Your task to perform on an android device: Search for vegetarian restaurants on Maps Image 0: 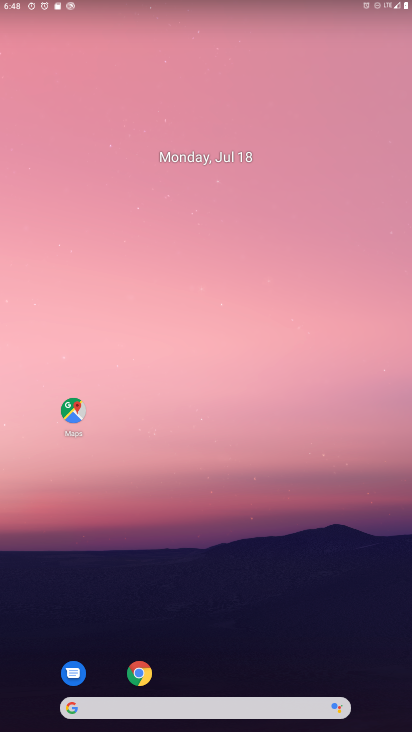
Step 0: click (79, 408)
Your task to perform on an android device: Search for vegetarian restaurants on Maps Image 1: 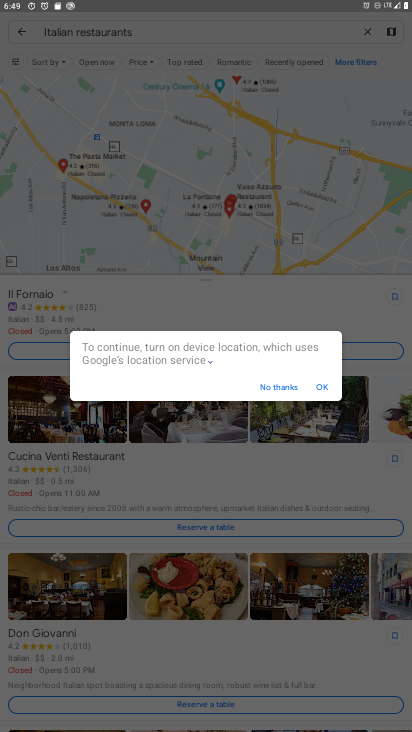
Step 1: click (320, 386)
Your task to perform on an android device: Search for vegetarian restaurants on Maps Image 2: 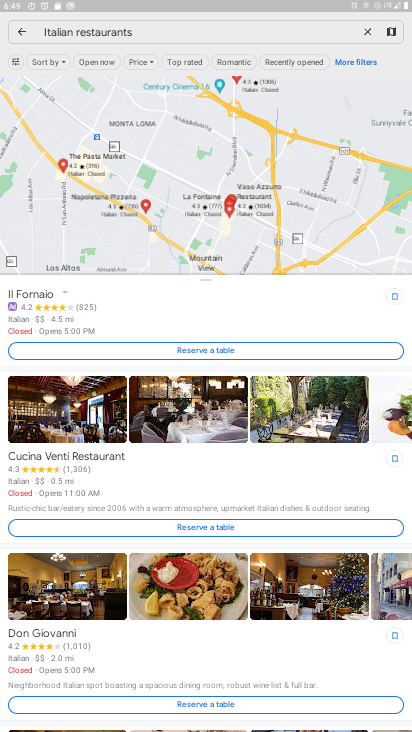
Step 2: click (145, 29)
Your task to perform on an android device: Search for vegetarian restaurants on Maps Image 3: 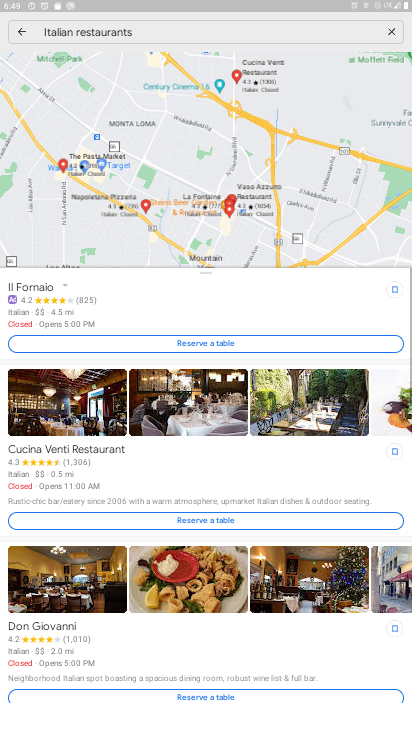
Step 3: click (131, 31)
Your task to perform on an android device: Search for vegetarian restaurants on Maps Image 4: 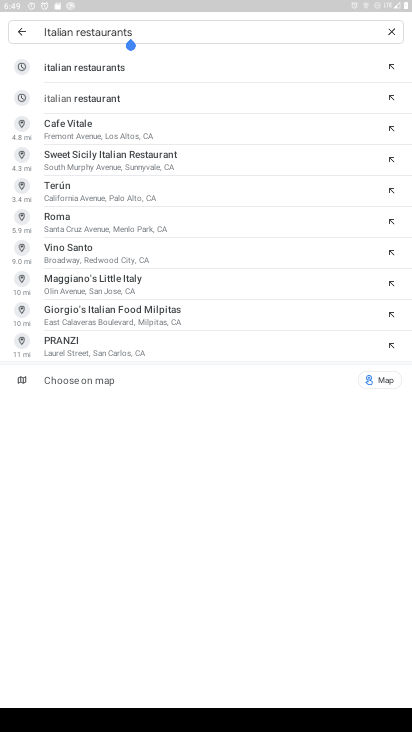
Step 4: click (390, 28)
Your task to perform on an android device: Search for vegetarian restaurants on Maps Image 5: 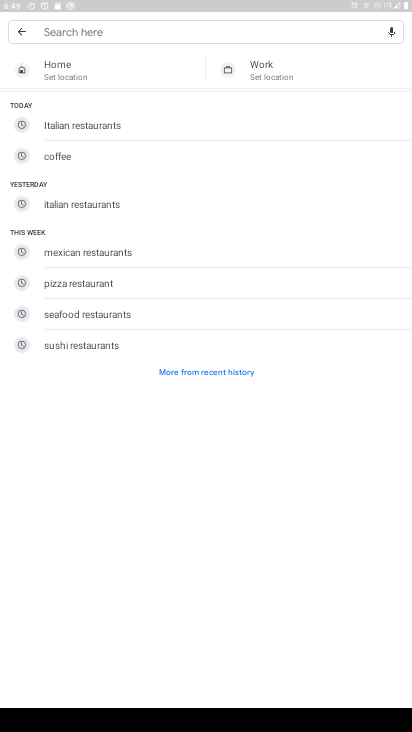
Step 5: type "vegetarian restaurants "
Your task to perform on an android device: Search for vegetarian restaurants on Maps Image 6: 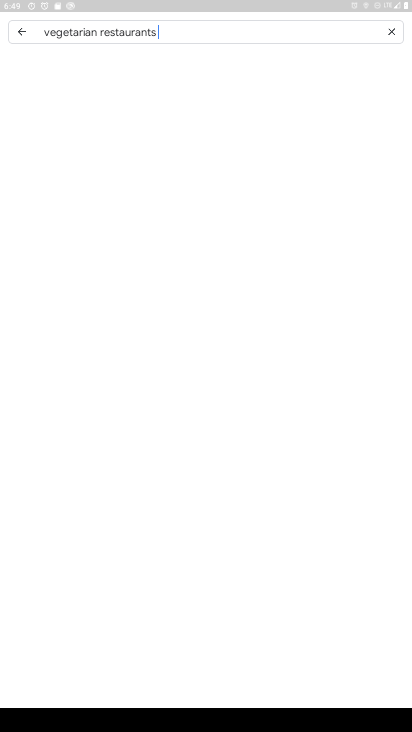
Step 6: press enter
Your task to perform on an android device: Search for vegetarian restaurants on Maps Image 7: 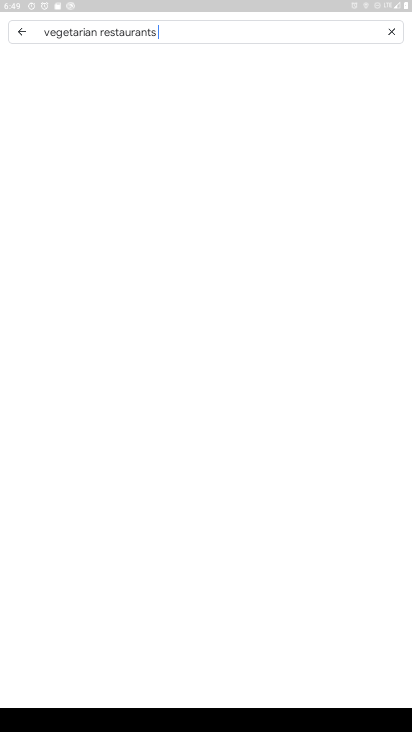
Step 7: type ""
Your task to perform on an android device: Search for vegetarian restaurants on Maps Image 8: 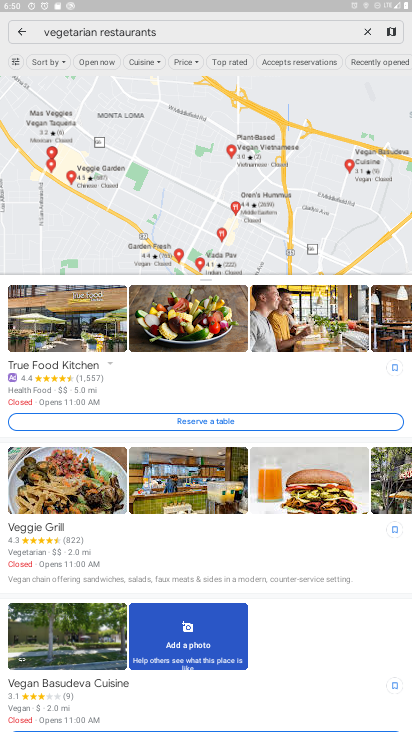
Step 8: task complete